Your task to perform on an android device: Open Google Chrome Image 0: 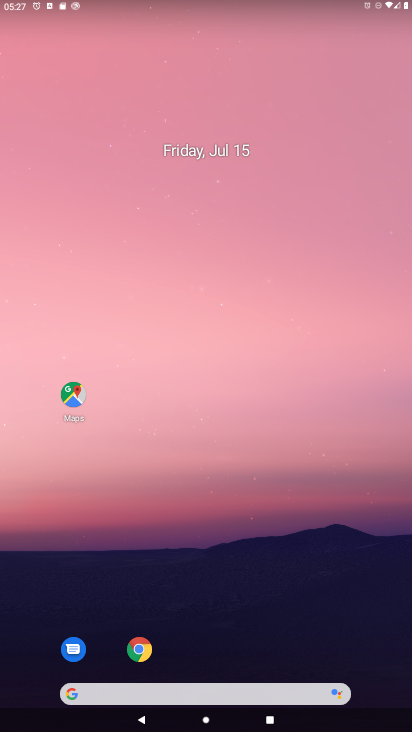
Step 0: click (138, 649)
Your task to perform on an android device: Open Google Chrome Image 1: 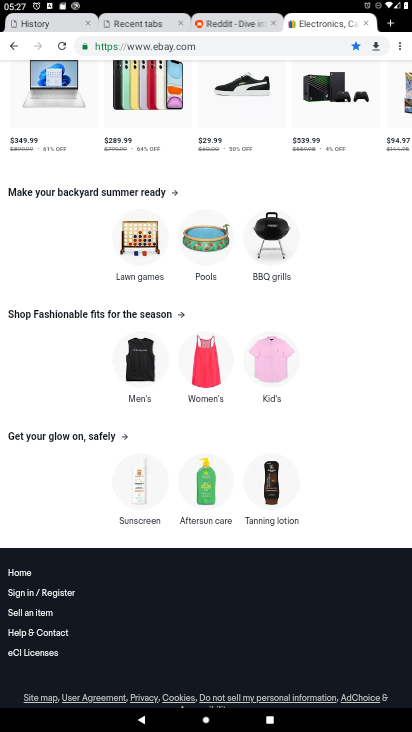
Step 1: task complete